Your task to perform on an android device: toggle priority inbox in the gmail app Image 0: 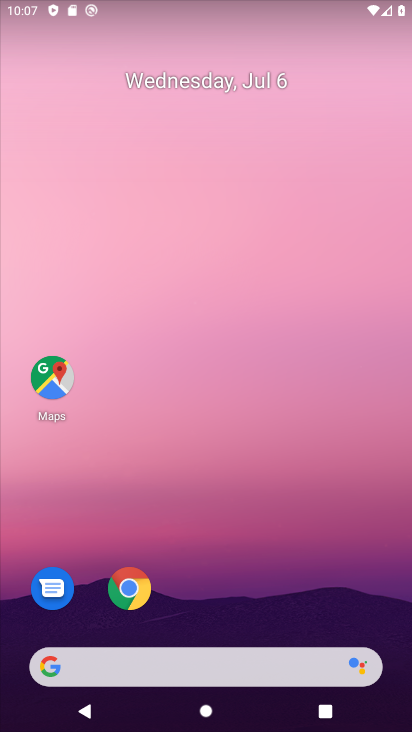
Step 0: drag from (196, 665) to (322, 101)
Your task to perform on an android device: toggle priority inbox in the gmail app Image 1: 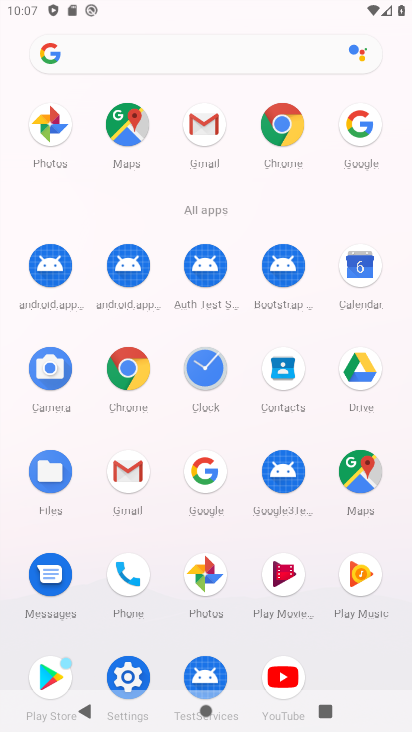
Step 1: click (203, 125)
Your task to perform on an android device: toggle priority inbox in the gmail app Image 2: 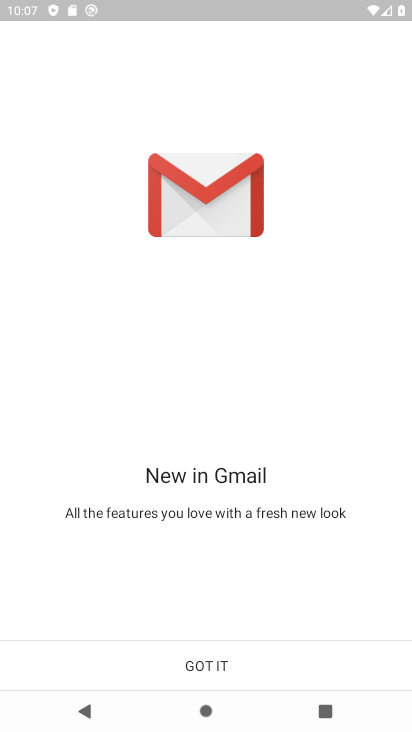
Step 2: click (198, 662)
Your task to perform on an android device: toggle priority inbox in the gmail app Image 3: 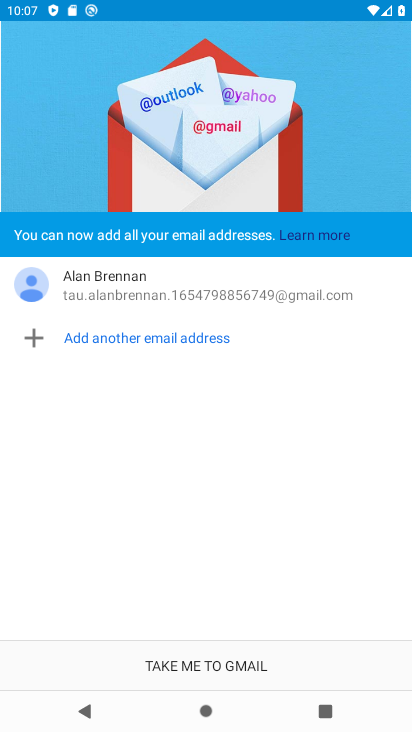
Step 3: click (198, 662)
Your task to perform on an android device: toggle priority inbox in the gmail app Image 4: 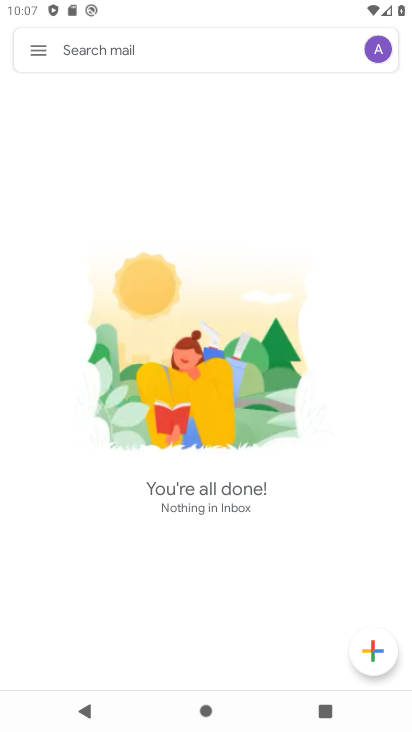
Step 4: click (38, 43)
Your task to perform on an android device: toggle priority inbox in the gmail app Image 5: 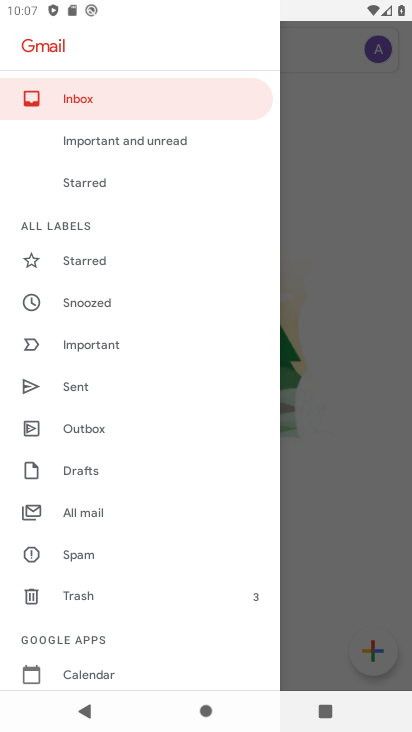
Step 5: drag from (111, 626) to (204, 125)
Your task to perform on an android device: toggle priority inbox in the gmail app Image 6: 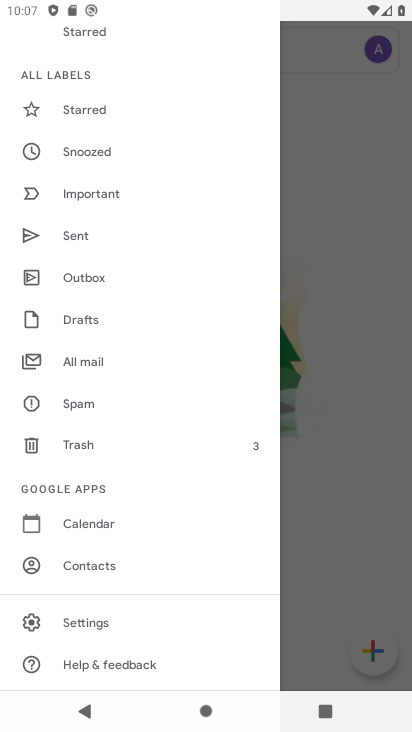
Step 6: click (92, 625)
Your task to perform on an android device: toggle priority inbox in the gmail app Image 7: 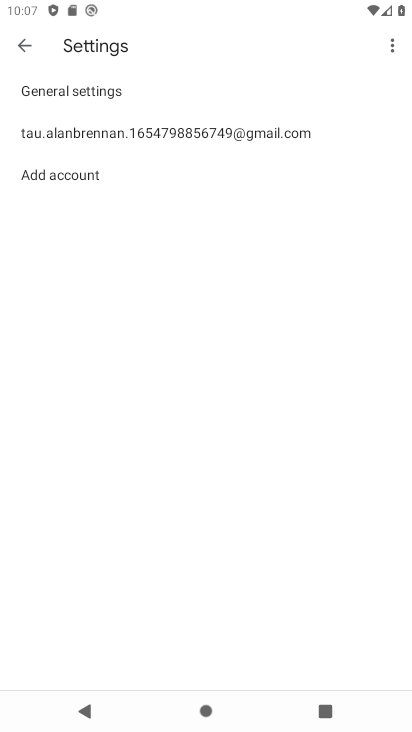
Step 7: click (220, 122)
Your task to perform on an android device: toggle priority inbox in the gmail app Image 8: 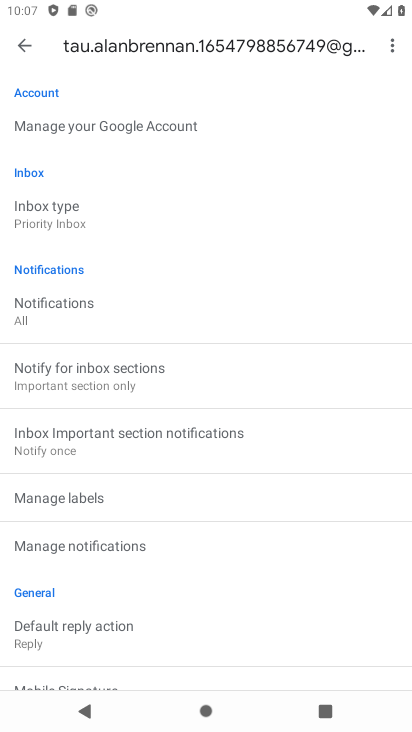
Step 8: click (61, 219)
Your task to perform on an android device: toggle priority inbox in the gmail app Image 9: 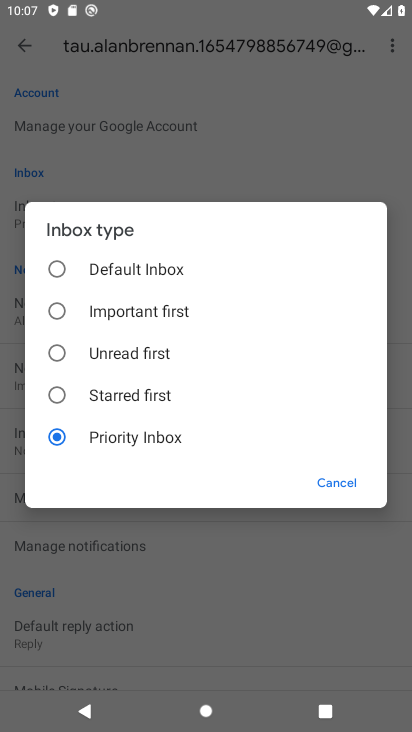
Step 9: click (59, 265)
Your task to perform on an android device: toggle priority inbox in the gmail app Image 10: 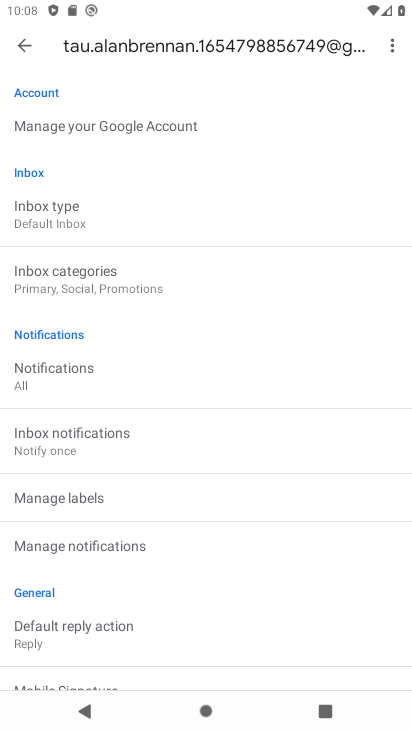
Step 10: task complete